Your task to perform on an android device: turn on airplane mode Image 0: 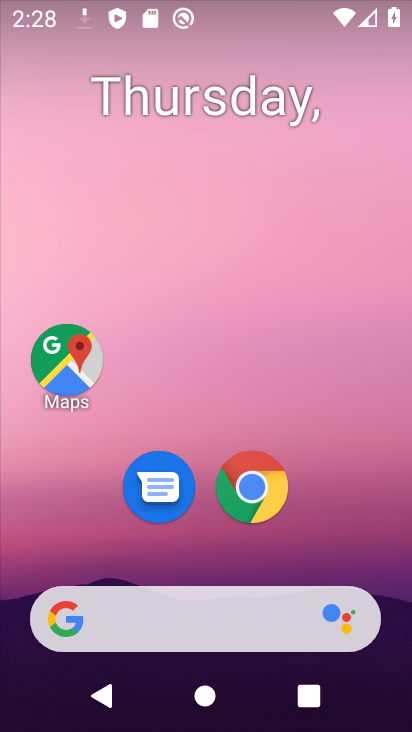
Step 0: drag from (280, 474) to (275, 89)
Your task to perform on an android device: turn on airplane mode Image 1: 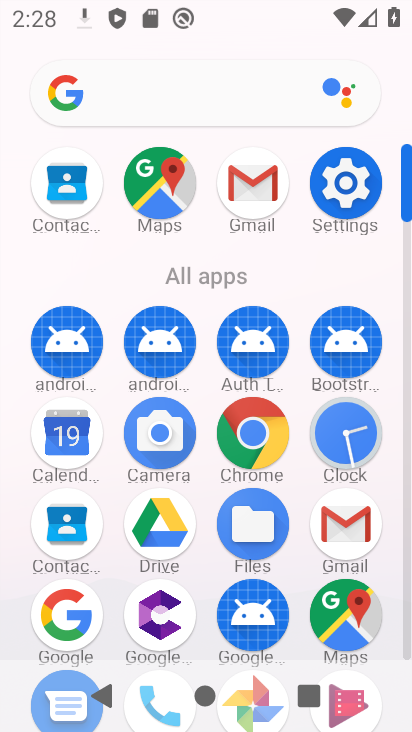
Step 1: click (336, 164)
Your task to perform on an android device: turn on airplane mode Image 2: 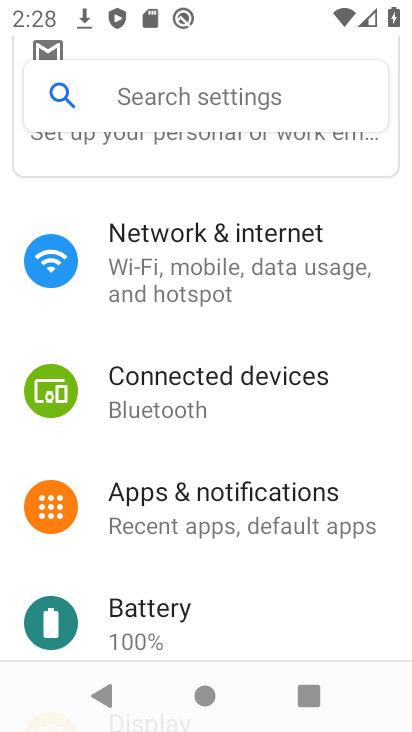
Step 2: click (186, 228)
Your task to perform on an android device: turn on airplane mode Image 3: 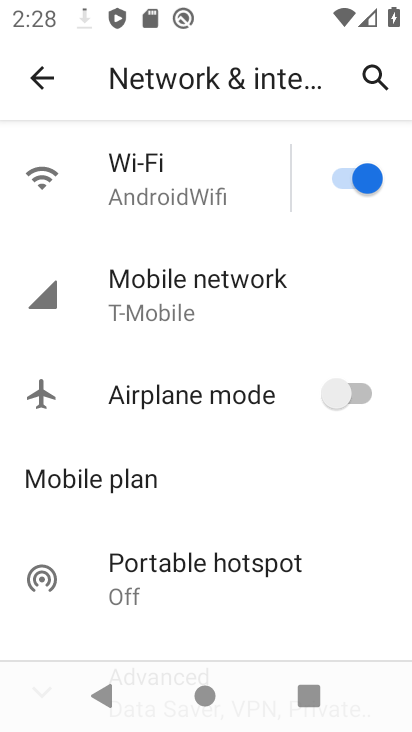
Step 3: click (329, 393)
Your task to perform on an android device: turn on airplane mode Image 4: 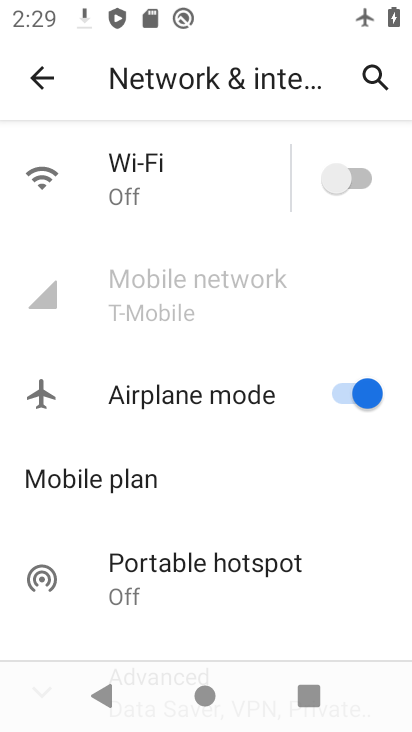
Step 4: task complete